Your task to perform on an android device: see tabs open on other devices in the chrome app Image 0: 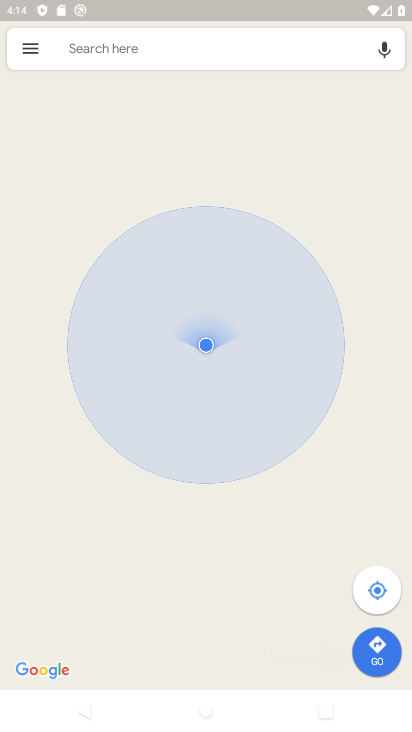
Step 0: press back button
Your task to perform on an android device: see tabs open on other devices in the chrome app Image 1: 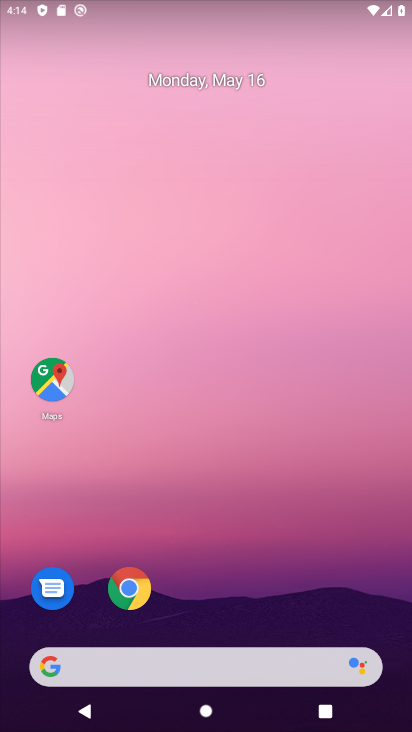
Step 1: drag from (263, 568) to (254, 46)
Your task to perform on an android device: see tabs open on other devices in the chrome app Image 2: 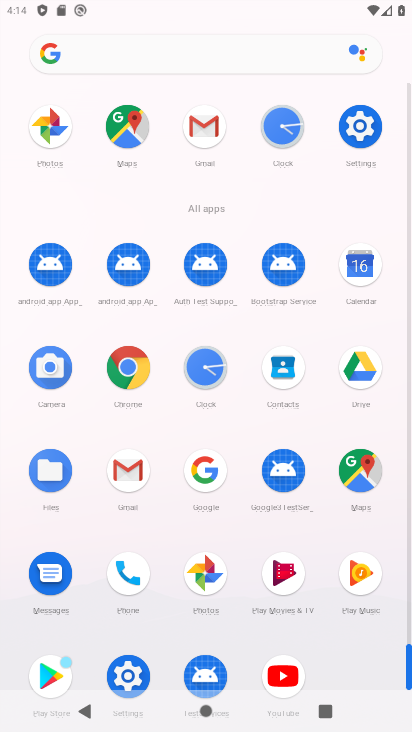
Step 2: click (128, 362)
Your task to perform on an android device: see tabs open on other devices in the chrome app Image 3: 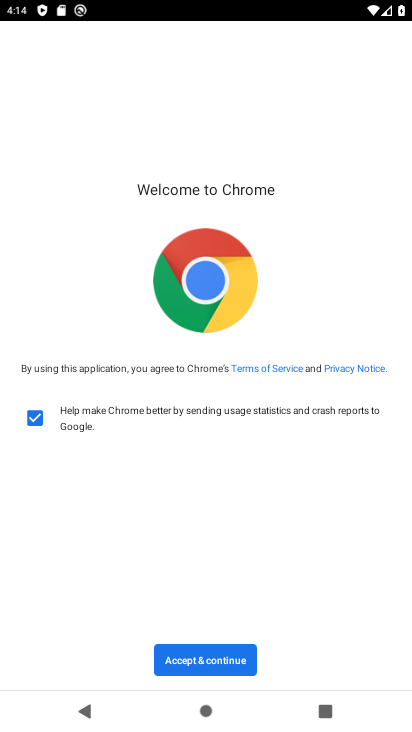
Step 3: click (235, 659)
Your task to perform on an android device: see tabs open on other devices in the chrome app Image 4: 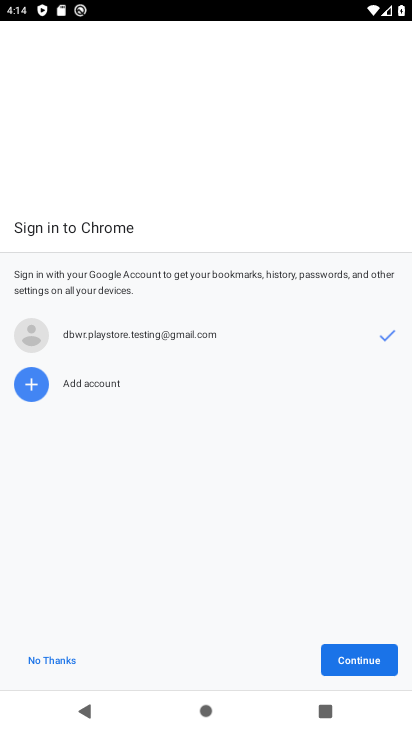
Step 4: click (368, 653)
Your task to perform on an android device: see tabs open on other devices in the chrome app Image 5: 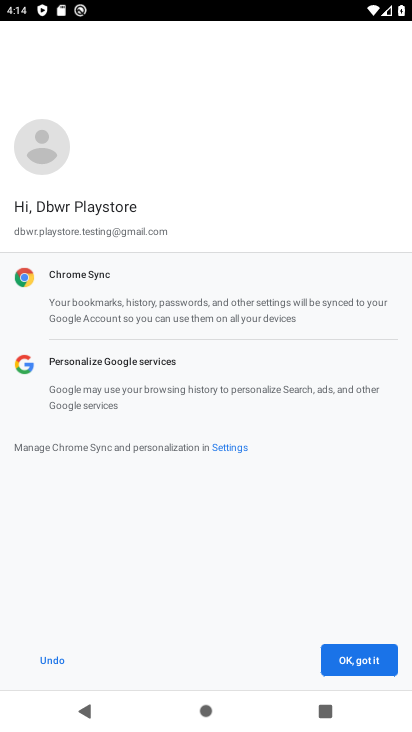
Step 5: click (361, 667)
Your task to perform on an android device: see tabs open on other devices in the chrome app Image 6: 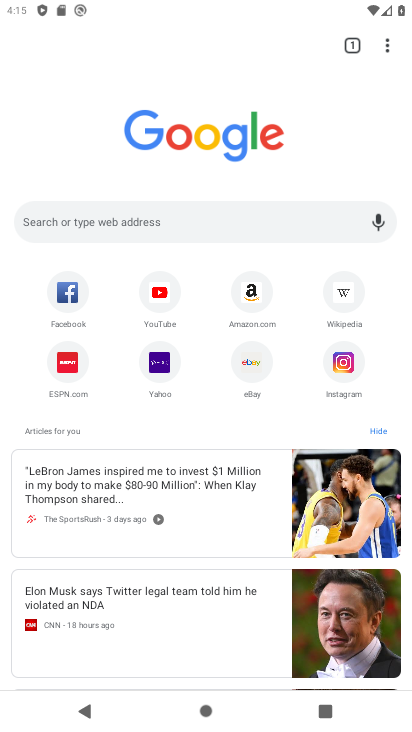
Step 6: task complete